Your task to perform on an android device: Show me the alarms in the clock app Image 0: 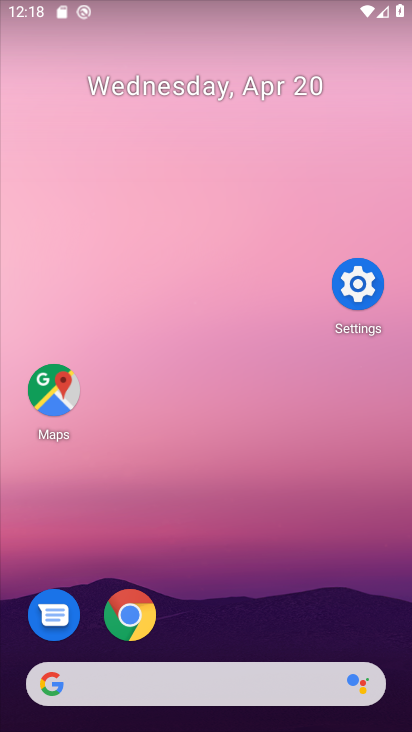
Step 0: drag from (192, 582) to (227, 234)
Your task to perform on an android device: Show me the alarms in the clock app Image 1: 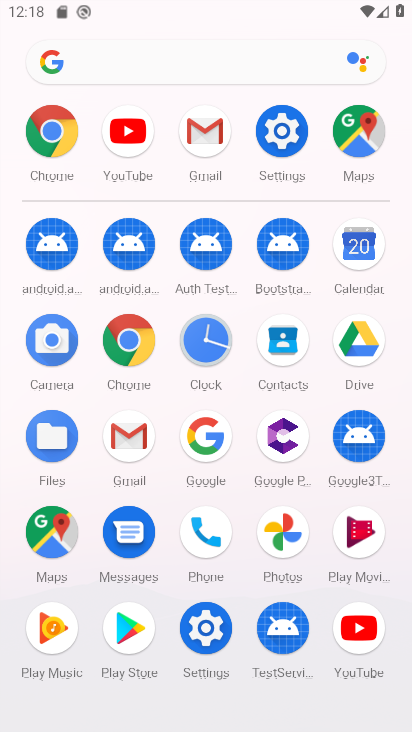
Step 1: click (193, 330)
Your task to perform on an android device: Show me the alarms in the clock app Image 2: 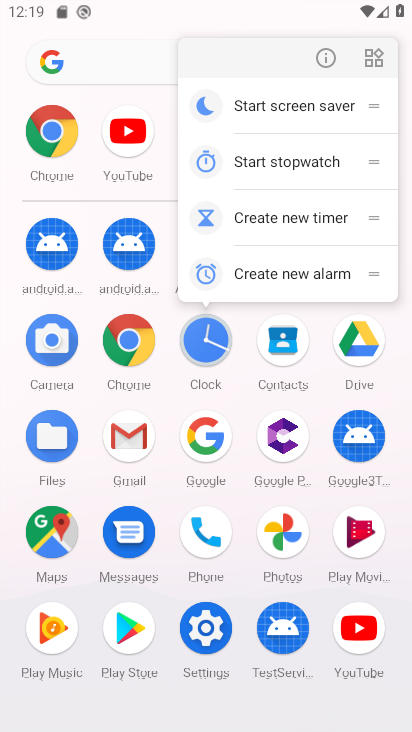
Step 2: click (314, 56)
Your task to perform on an android device: Show me the alarms in the clock app Image 3: 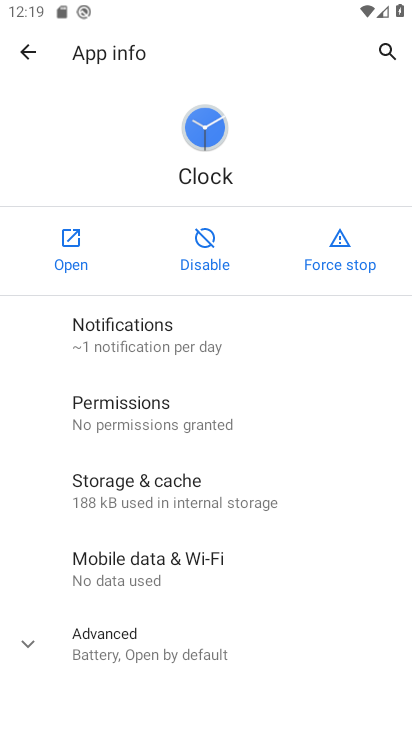
Step 3: click (84, 250)
Your task to perform on an android device: Show me the alarms in the clock app Image 4: 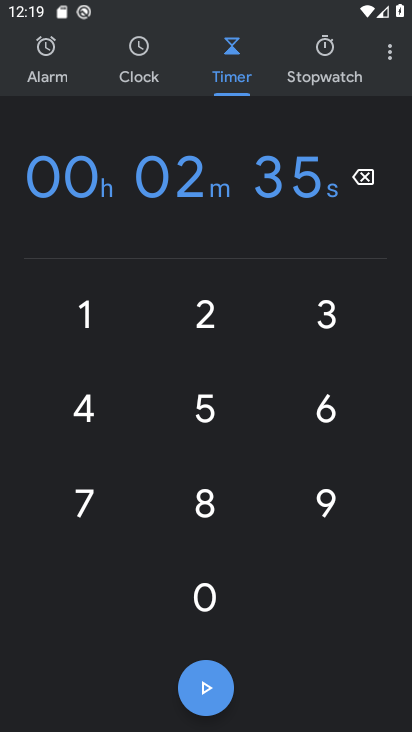
Step 4: click (55, 60)
Your task to perform on an android device: Show me the alarms in the clock app Image 5: 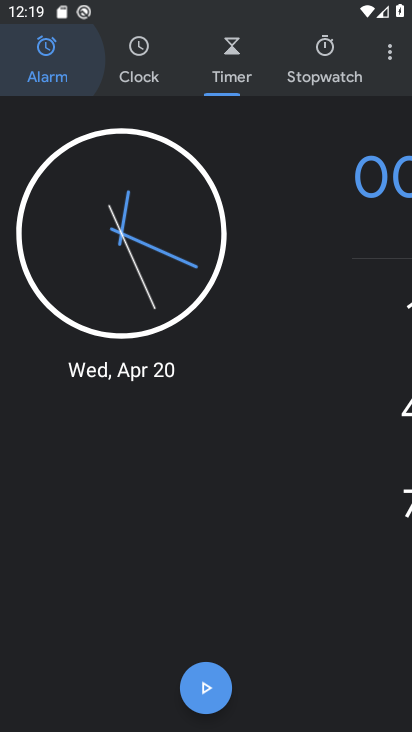
Step 5: task complete